Your task to perform on an android device: Open Reddit.com Image 0: 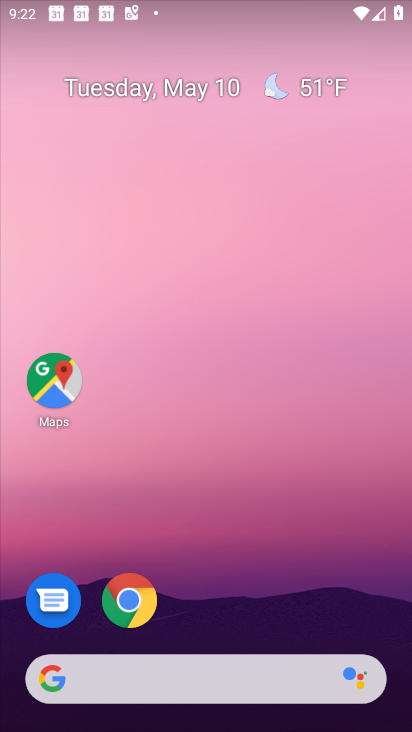
Step 0: click (128, 596)
Your task to perform on an android device: Open Reddit.com Image 1: 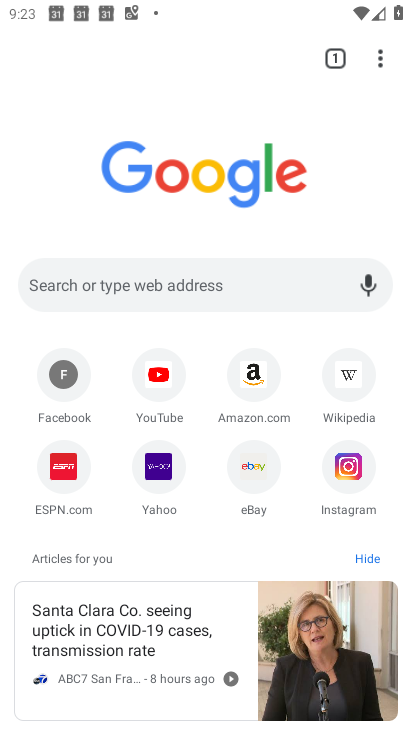
Step 1: click (159, 281)
Your task to perform on an android device: Open Reddit.com Image 2: 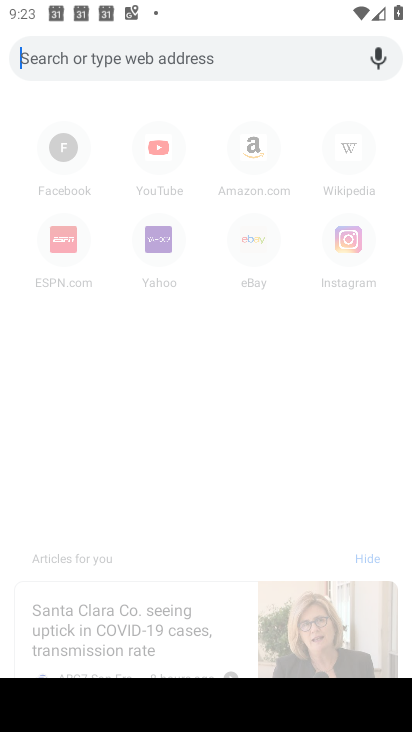
Step 2: type "reddit.com"
Your task to perform on an android device: Open Reddit.com Image 3: 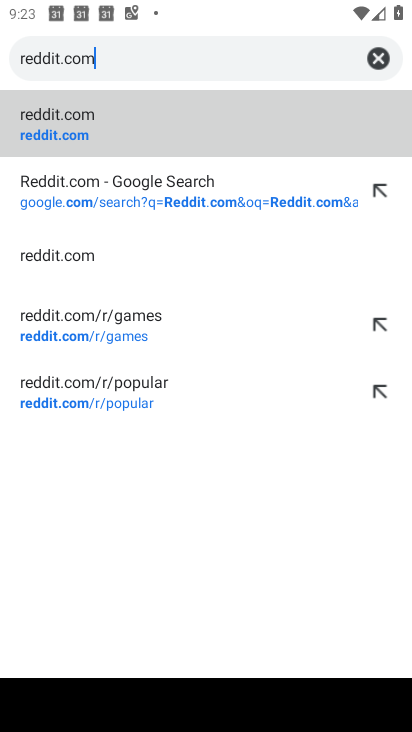
Step 3: click (67, 125)
Your task to perform on an android device: Open Reddit.com Image 4: 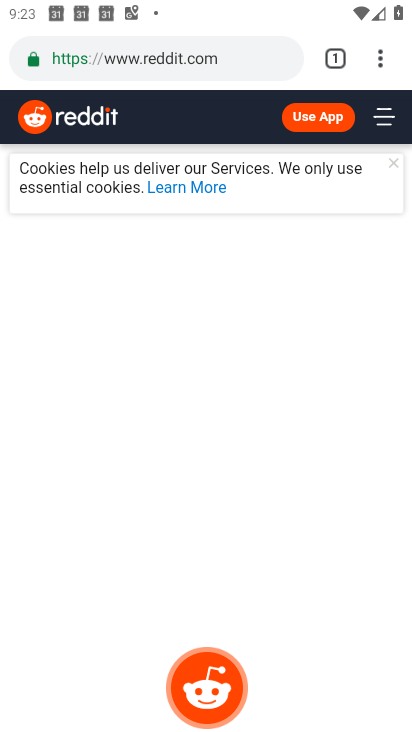
Step 4: task complete